Your task to perform on an android device: What is the news today? Image 0: 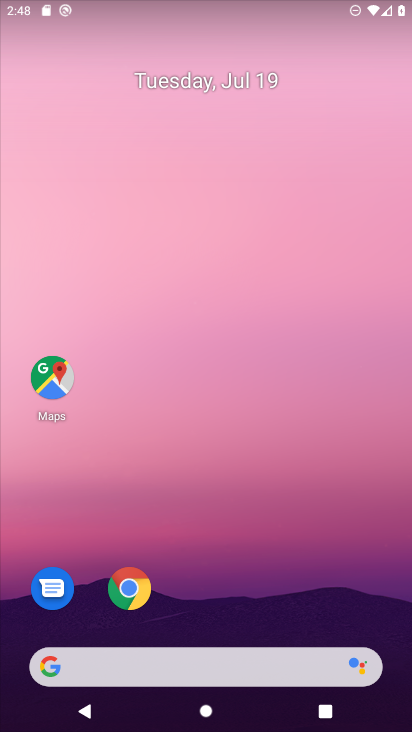
Step 0: click (197, 666)
Your task to perform on an android device: What is the news today? Image 1: 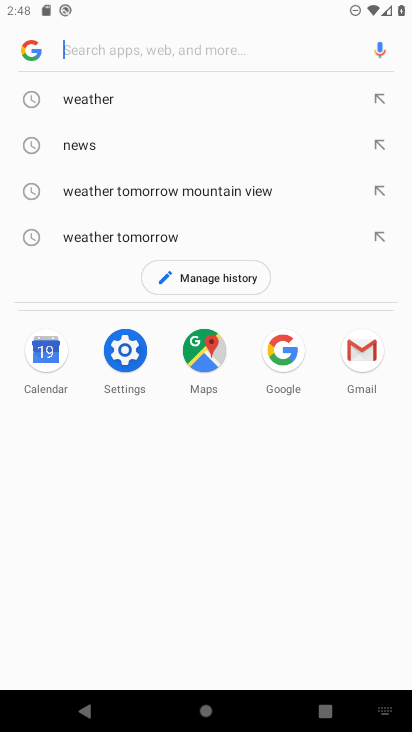
Step 1: type "News today"
Your task to perform on an android device: What is the news today? Image 2: 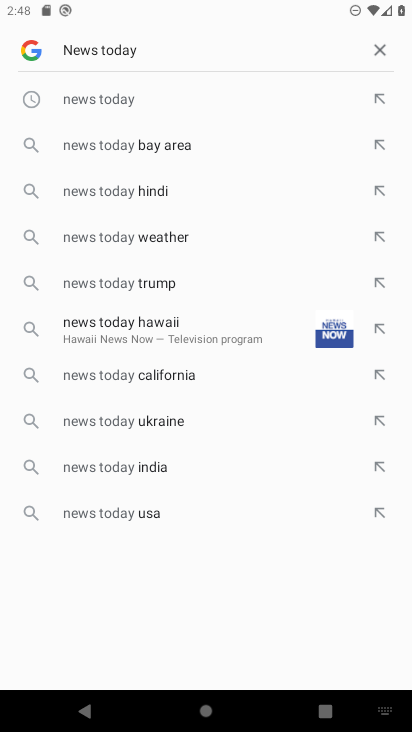
Step 2: click (112, 93)
Your task to perform on an android device: What is the news today? Image 3: 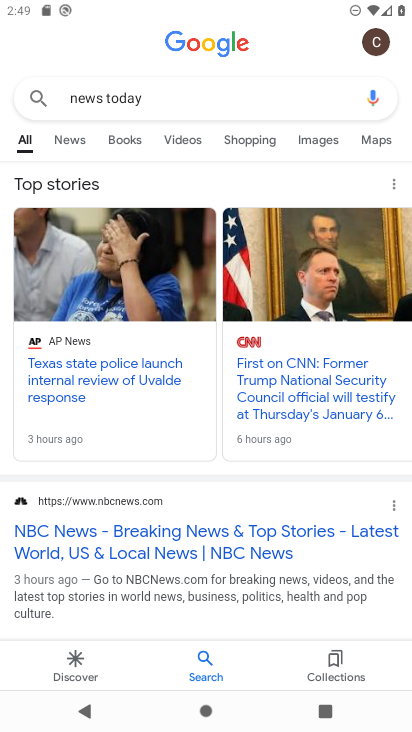
Step 3: task complete